Your task to perform on an android device: turn off sleep mode Image 0: 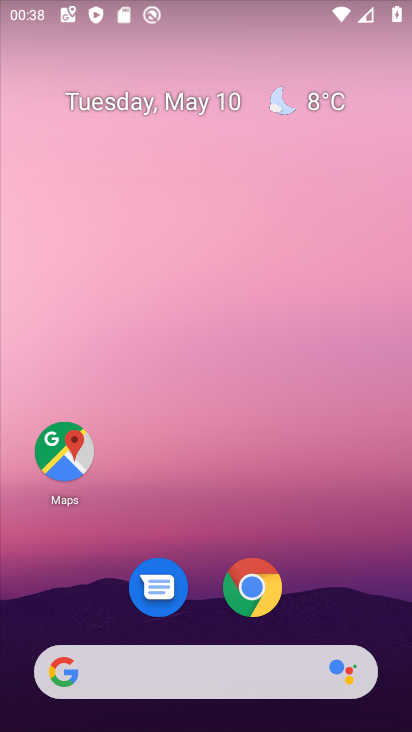
Step 0: drag from (390, 656) to (333, 228)
Your task to perform on an android device: turn off sleep mode Image 1: 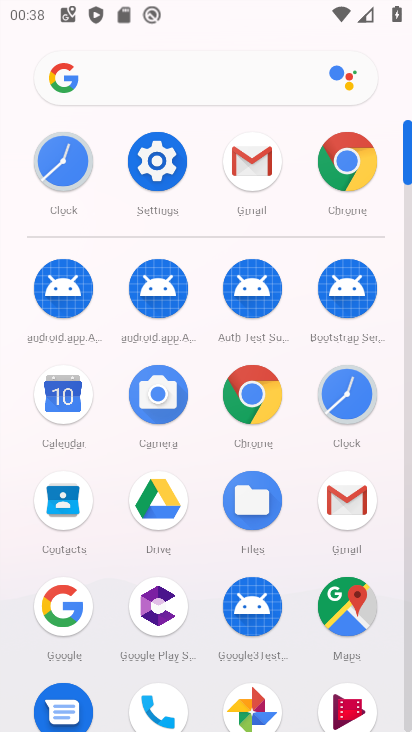
Step 1: click (159, 166)
Your task to perform on an android device: turn off sleep mode Image 2: 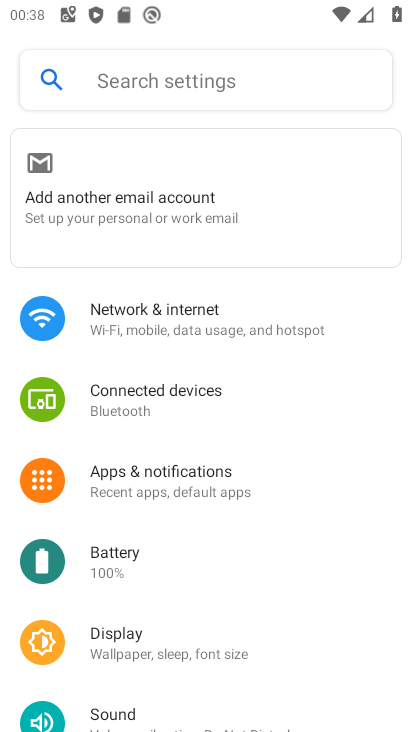
Step 2: click (124, 645)
Your task to perform on an android device: turn off sleep mode Image 3: 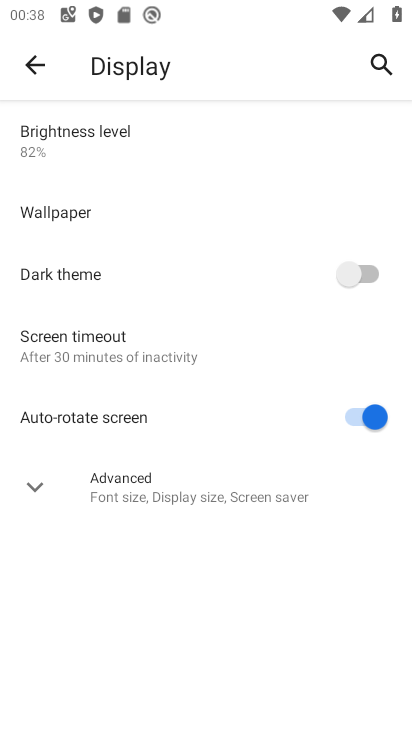
Step 3: click (84, 343)
Your task to perform on an android device: turn off sleep mode Image 4: 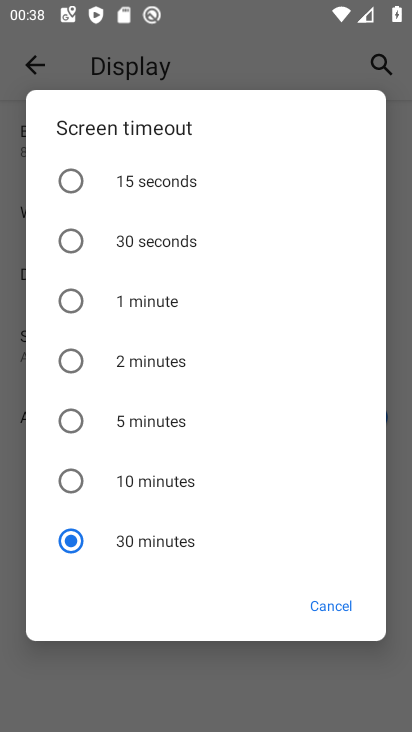
Step 4: task complete